Your task to perform on an android device: Open Youtube and go to the subscriptions tab Image 0: 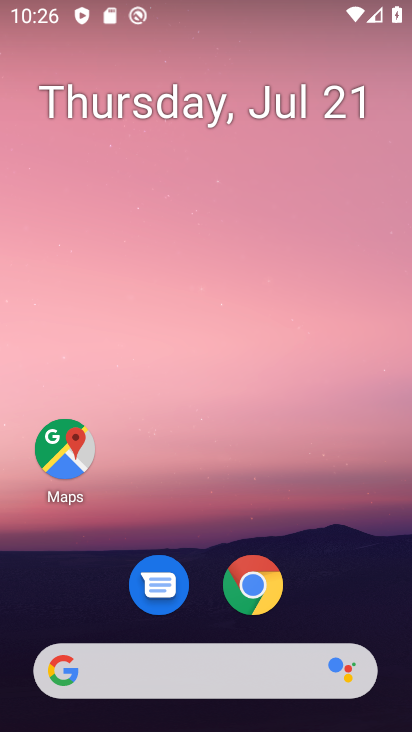
Step 0: drag from (220, 663) to (260, 216)
Your task to perform on an android device: Open Youtube and go to the subscriptions tab Image 1: 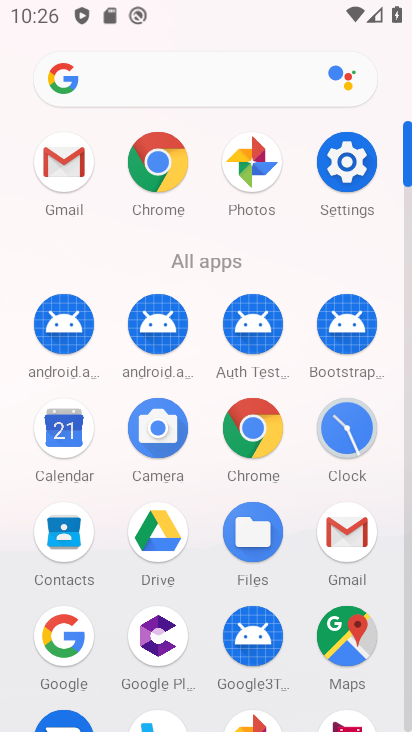
Step 1: drag from (205, 615) to (222, 57)
Your task to perform on an android device: Open Youtube and go to the subscriptions tab Image 2: 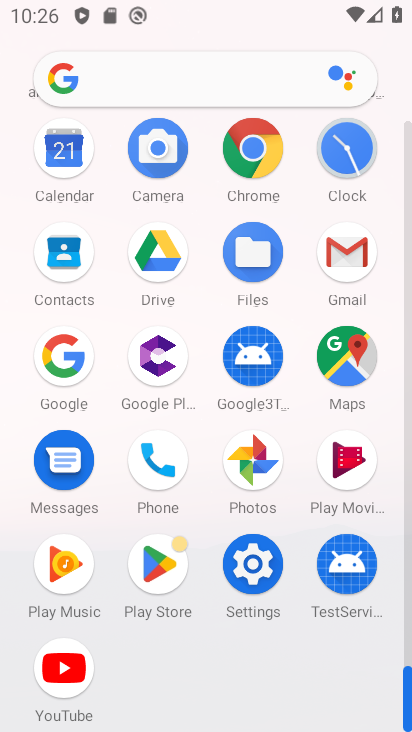
Step 2: click (56, 679)
Your task to perform on an android device: Open Youtube and go to the subscriptions tab Image 3: 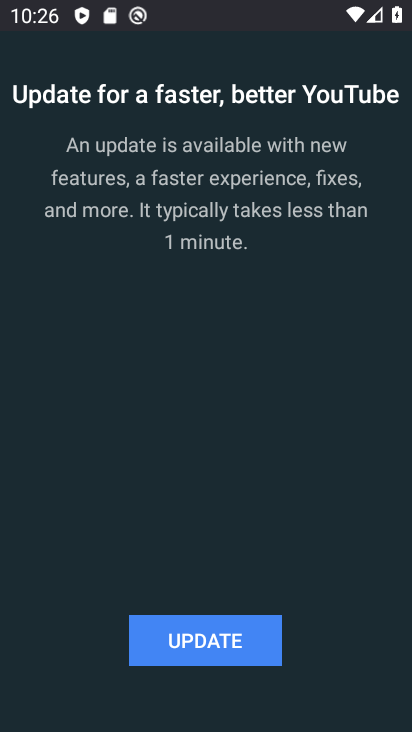
Step 3: click (196, 631)
Your task to perform on an android device: Open Youtube and go to the subscriptions tab Image 4: 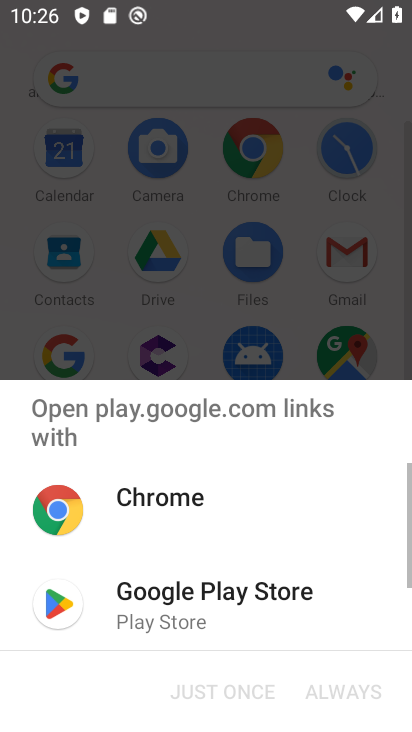
Step 4: click (171, 601)
Your task to perform on an android device: Open Youtube and go to the subscriptions tab Image 5: 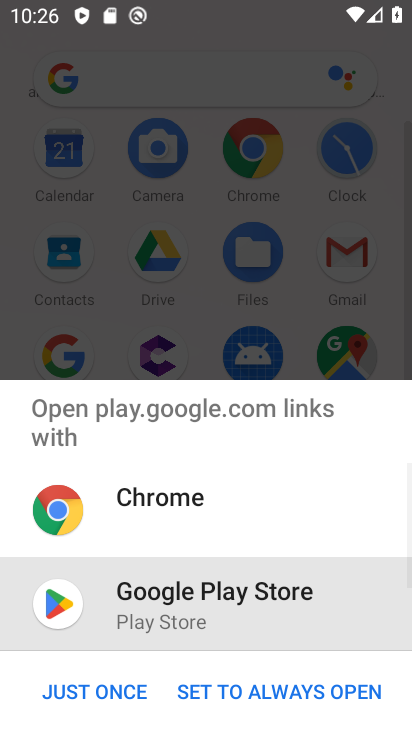
Step 5: click (116, 681)
Your task to perform on an android device: Open Youtube and go to the subscriptions tab Image 6: 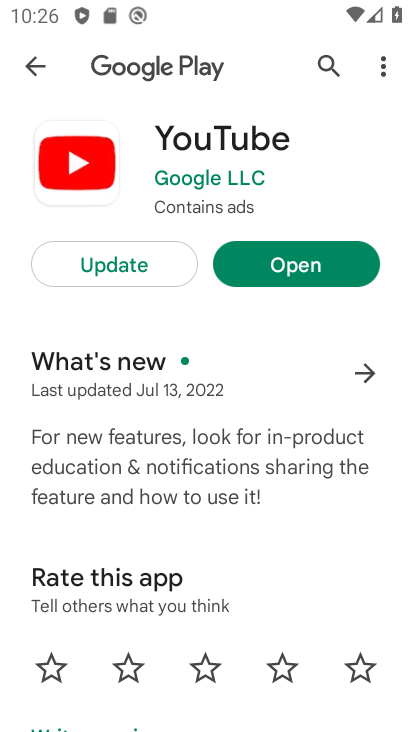
Step 6: click (136, 257)
Your task to perform on an android device: Open Youtube and go to the subscriptions tab Image 7: 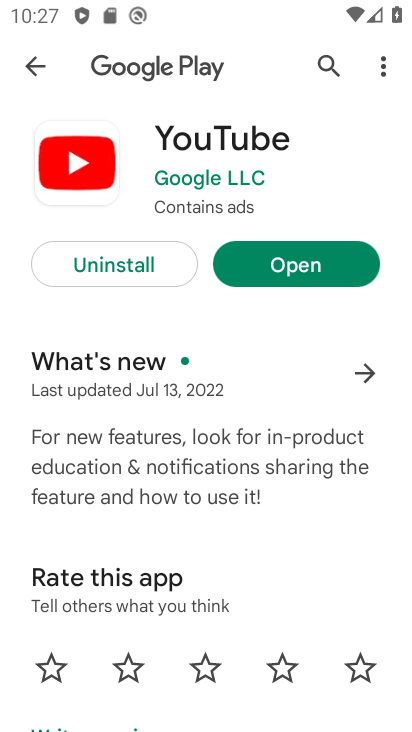
Step 7: click (312, 264)
Your task to perform on an android device: Open Youtube and go to the subscriptions tab Image 8: 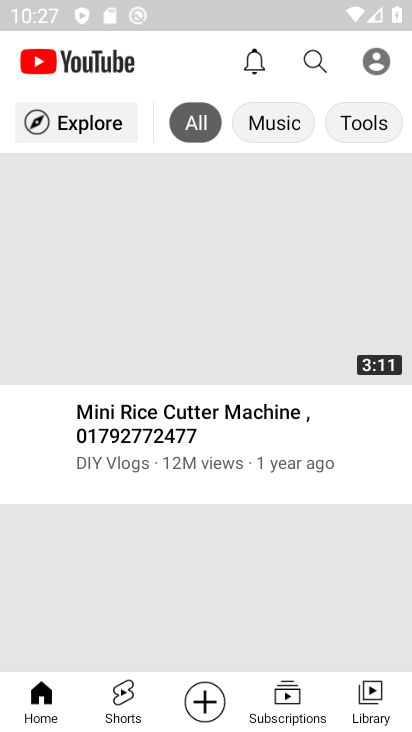
Step 8: click (279, 699)
Your task to perform on an android device: Open Youtube and go to the subscriptions tab Image 9: 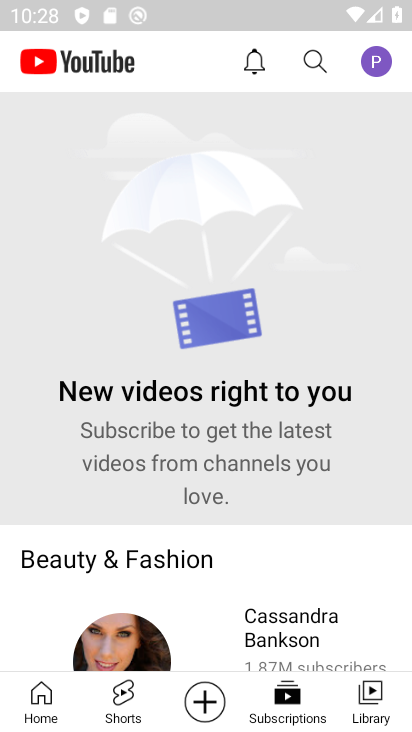
Step 9: task complete